Your task to perform on an android device: Show me recent news Image 0: 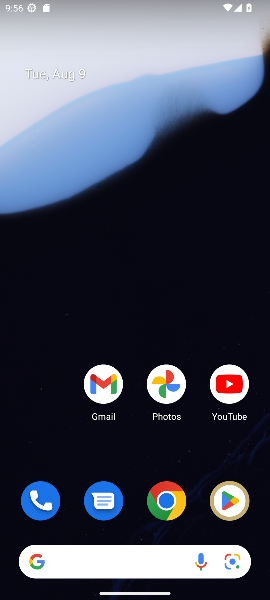
Step 0: click (116, 564)
Your task to perform on an android device: Show me recent news Image 1: 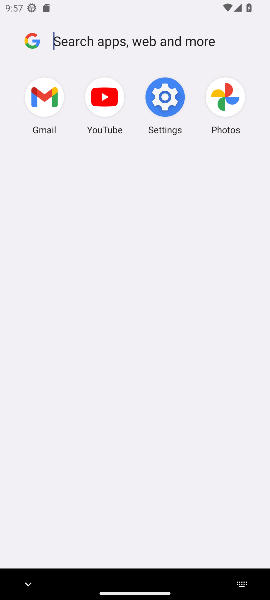
Step 1: type "recent news"
Your task to perform on an android device: Show me recent news Image 2: 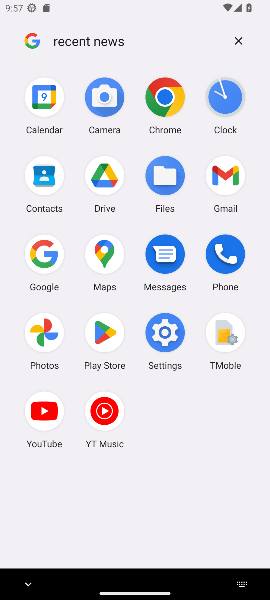
Step 2: click (53, 250)
Your task to perform on an android device: Show me recent news Image 3: 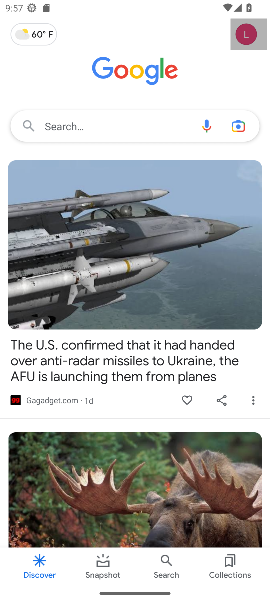
Step 3: click (37, 120)
Your task to perform on an android device: Show me recent news Image 4: 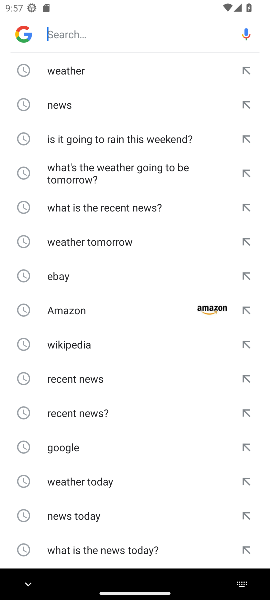
Step 4: type "recent news"
Your task to perform on an android device: Show me recent news Image 5: 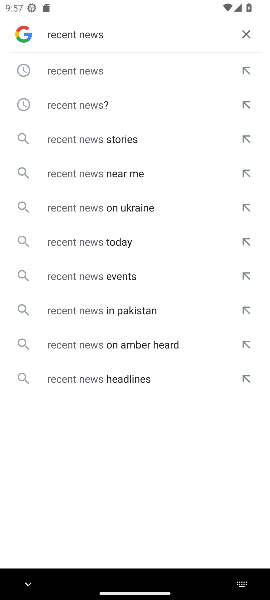
Step 5: click (98, 68)
Your task to perform on an android device: Show me recent news Image 6: 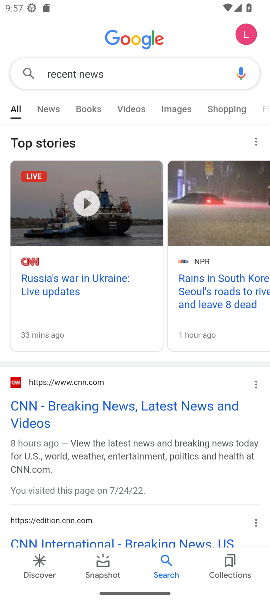
Step 6: task complete